Your task to perform on an android device: toggle priority inbox in the gmail app Image 0: 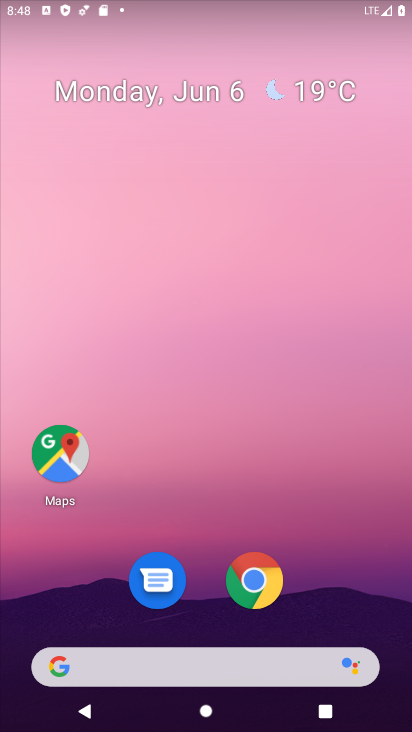
Step 0: drag from (377, 481) to (409, 32)
Your task to perform on an android device: toggle priority inbox in the gmail app Image 1: 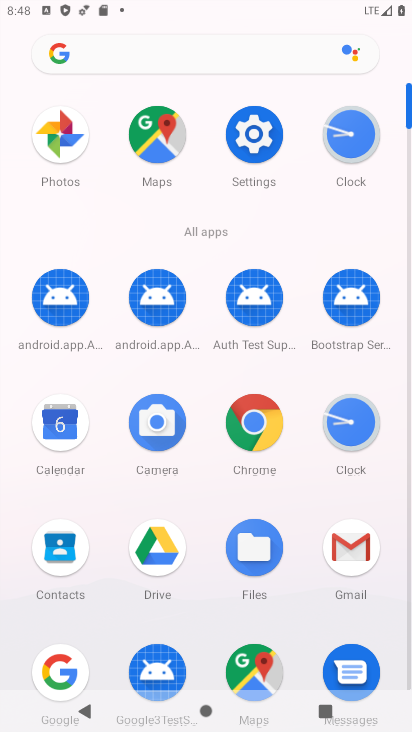
Step 1: click (338, 534)
Your task to perform on an android device: toggle priority inbox in the gmail app Image 2: 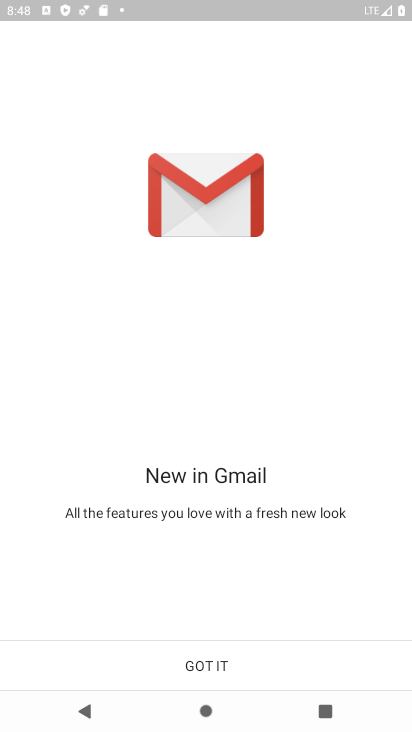
Step 2: click (203, 675)
Your task to perform on an android device: toggle priority inbox in the gmail app Image 3: 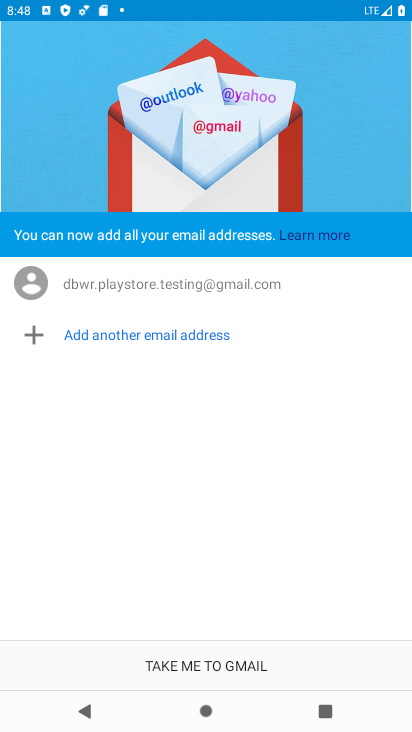
Step 3: click (203, 675)
Your task to perform on an android device: toggle priority inbox in the gmail app Image 4: 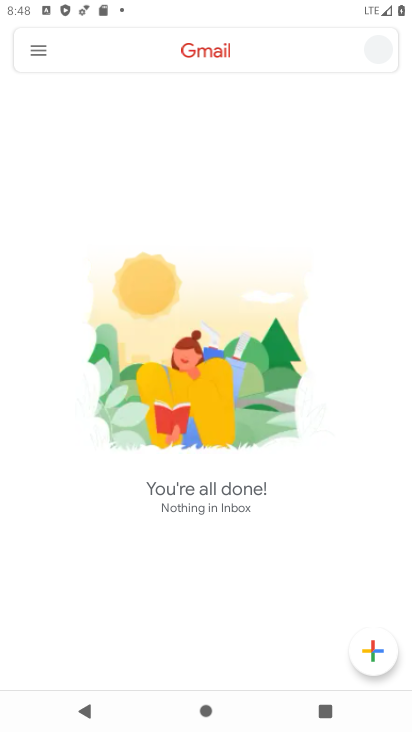
Step 4: click (53, 49)
Your task to perform on an android device: toggle priority inbox in the gmail app Image 5: 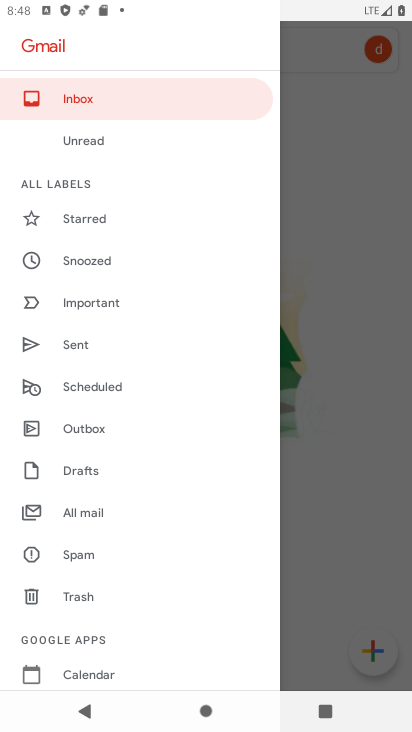
Step 5: drag from (192, 448) to (256, 171)
Your task to perform on an android device: toggle priority inbox in the gmail app Image 6: 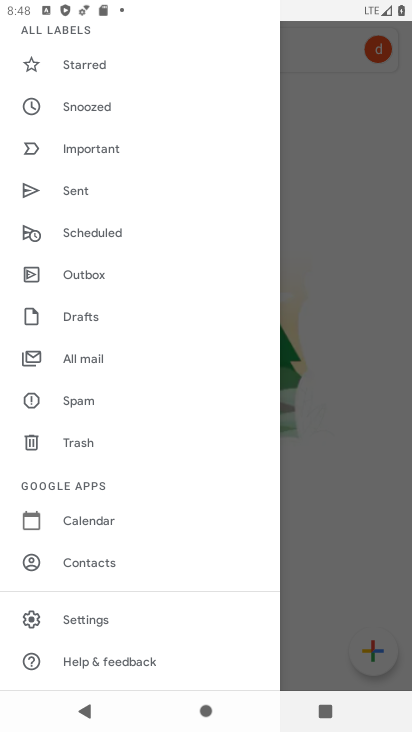
Step 6: click (84, 617)
Your task to perform on an android device: toggle priority inbox in the gmail app Image 7: 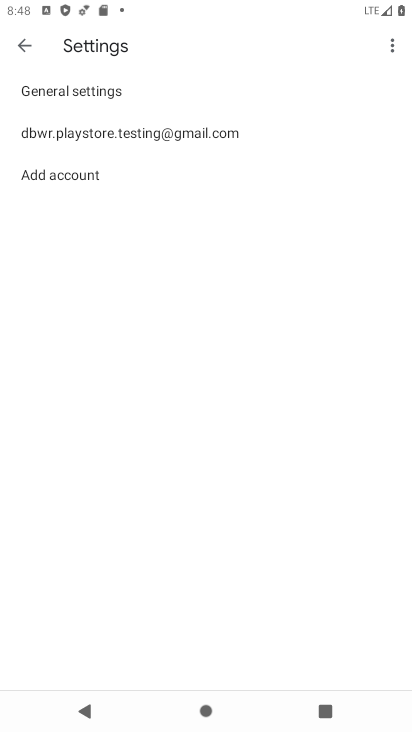
Step 7: click (44, 127)
Your task to perform on an android device: toggle priority inbox in the gmail app Image 8: 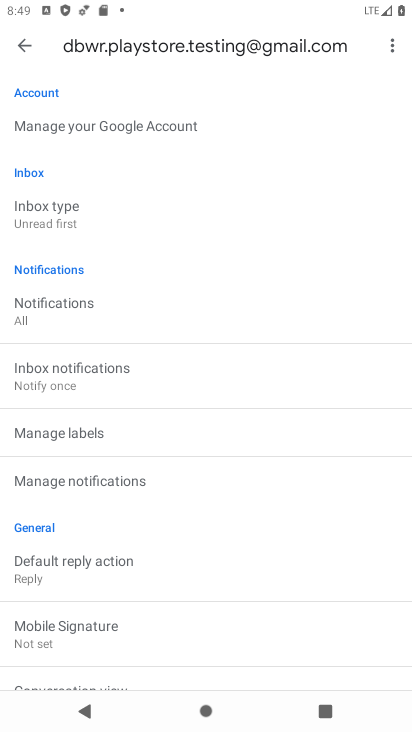
Step 8: click (37, 228)
Your task to perform on an android device: toggle priority inbox in the gmail app Image 9: 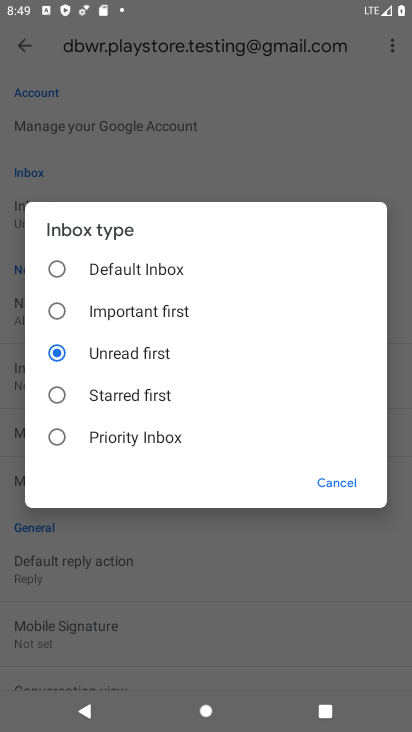
Step 9: click (123, 451)
Your task to perform on an android device: toggle priority inbox in the gmail app Image 10: 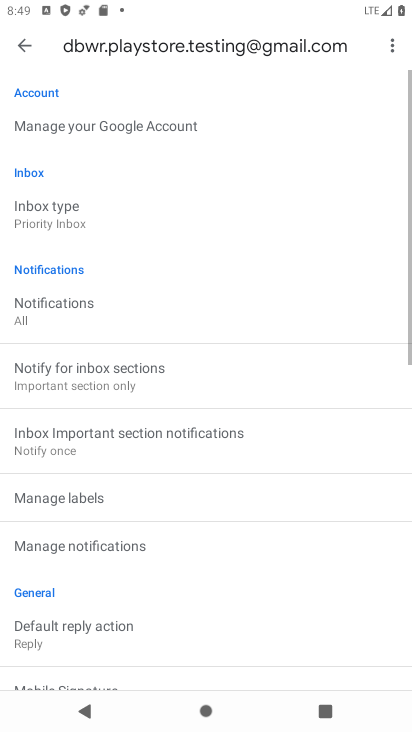
Step 10: task complete